Your task to perform on an android device: turn on bluetooth scan Image 0: 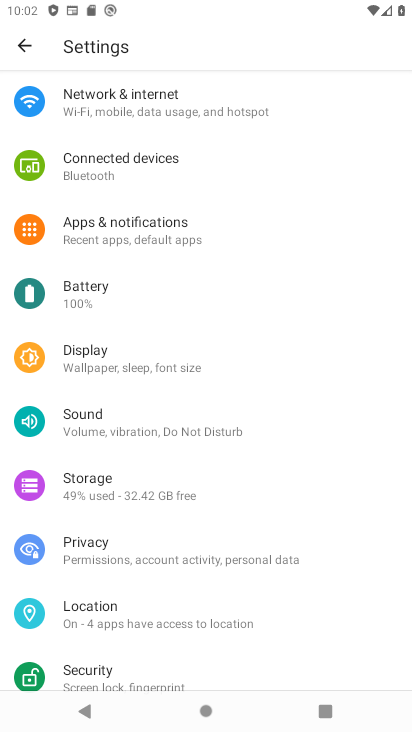
Step 0: click (290, 620)
Your task to perform on an android device: turn on bluetooth scan Image 1: 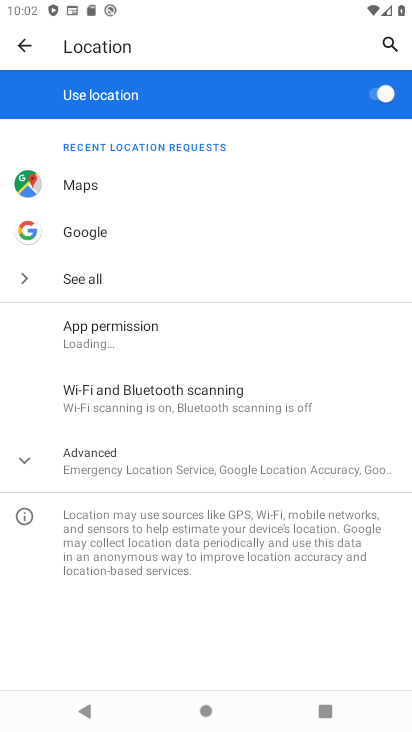
Step 1: click (242, 389)
Your task to perform on an android device: turn on bluetooth scan Image 2: 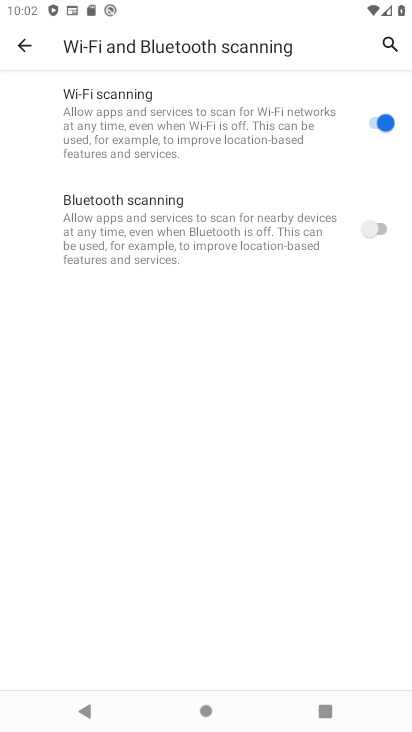
Step 2: click (381, 230)
Your task to perform on an android device: turn on bluetooth scan Image 3: 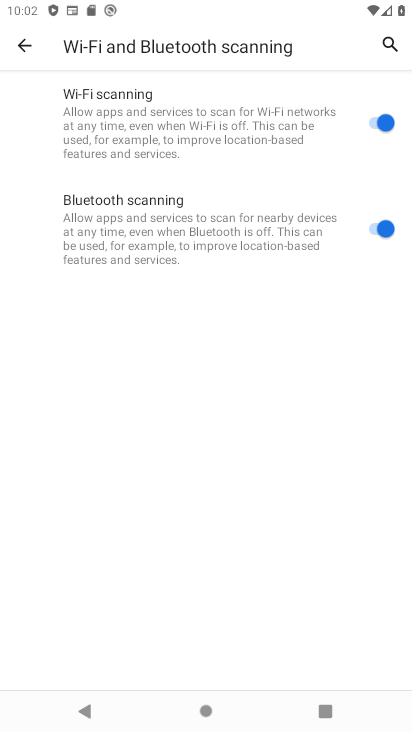
Step 3: task complete